Your task to perform on an android device: delete browsing data in the chrome app Image 0: 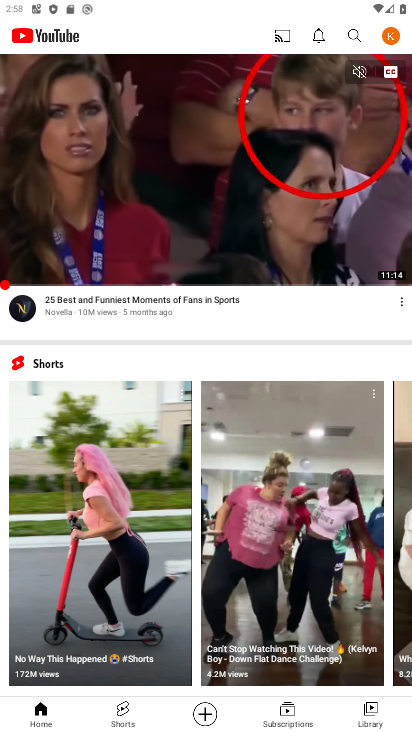
Step 0: press home button
Your task to perform on an android device: delete browsing data in the chrome app Image 1: 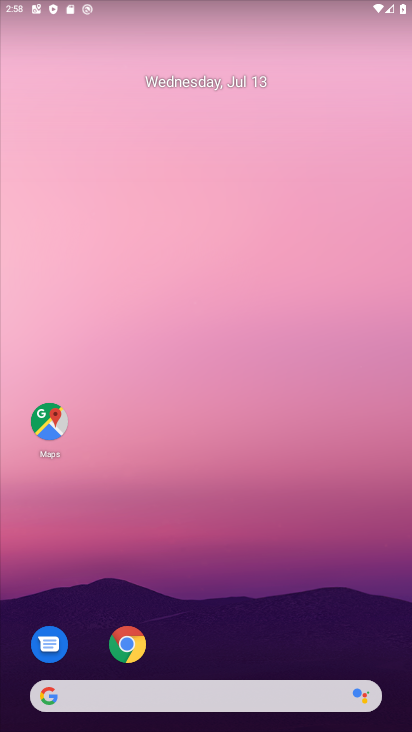
Step 1: drag from (345, 584) to (280, 142)
Your task to perform on an android device: delete browsing data in the chrome app Image 2: 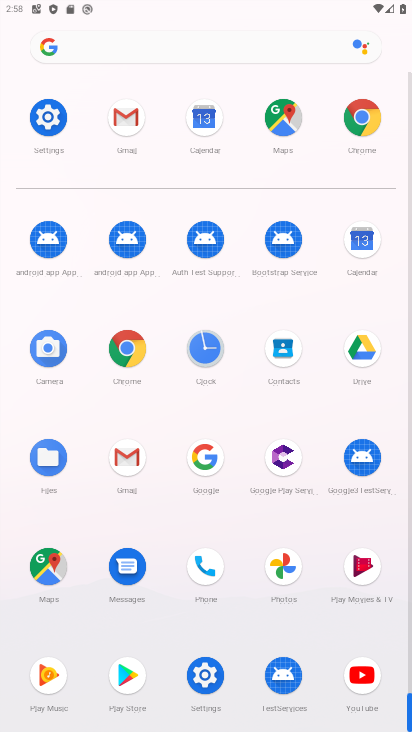
Step 2: click (361, 117)
Your task to perform on an android device: delete browsing data in the chrome app Image 3: 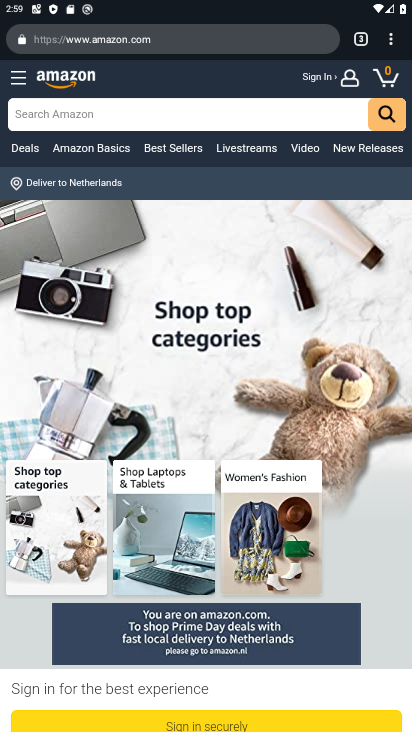
Step 3: drag from (389, 45) to (269, 216)
Your task to perform on an android device: delete browsing data in the chrome app Image 4: 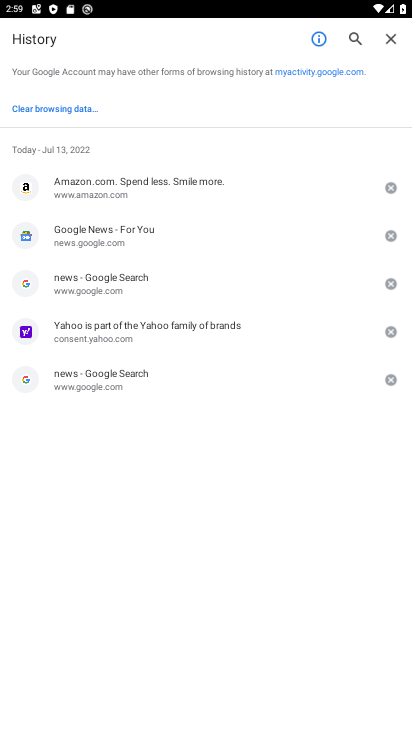
Step 4: click (80, 109)
Your task to perform on an android device: delete browsing data in the chrome app Image 5: 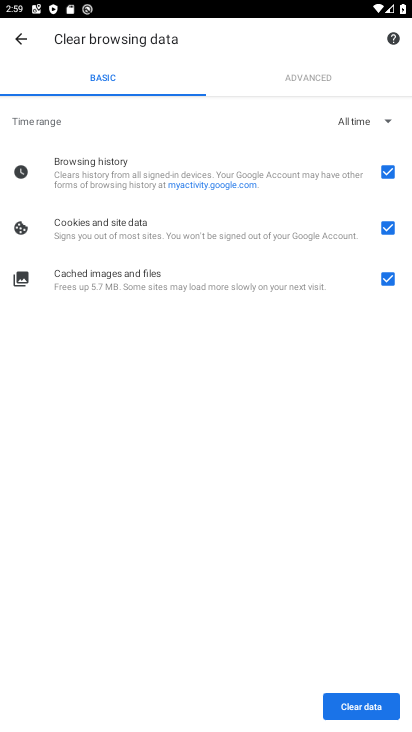
Step 5: click (357, 714)
Your task to perform on an android device: delete browsing data in the chrome app Image 6: 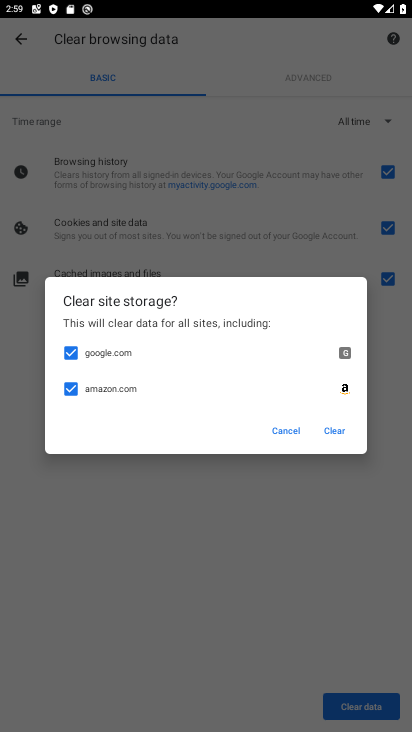
Step 6: click (343, 430)
Your task to perform on an android device: delete browsing data in the chrome app Image 7: 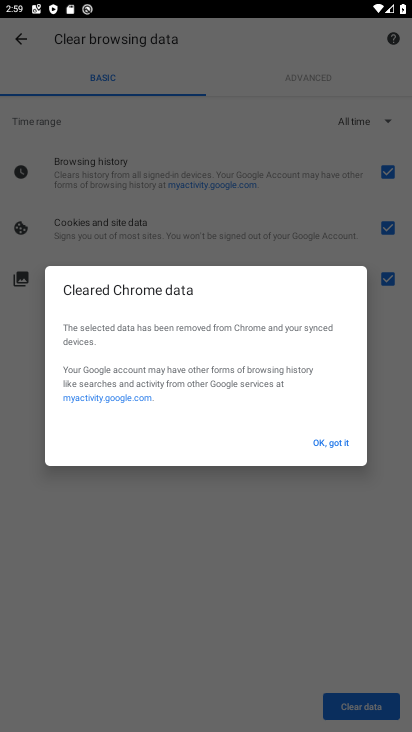
Step 7: task complete